Your task to perform on an android device: allow notifications from all sites in the chrome app Image 0: 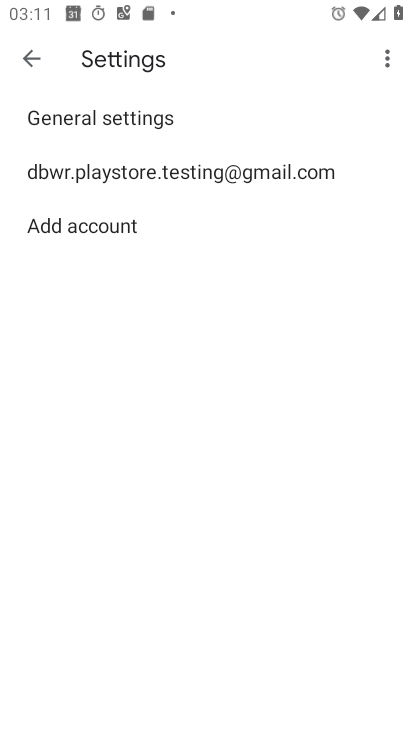
Step 0: click (173, 169)
Your task to perform on an android device: allow notifications from all sites in the chrome app Image 1: 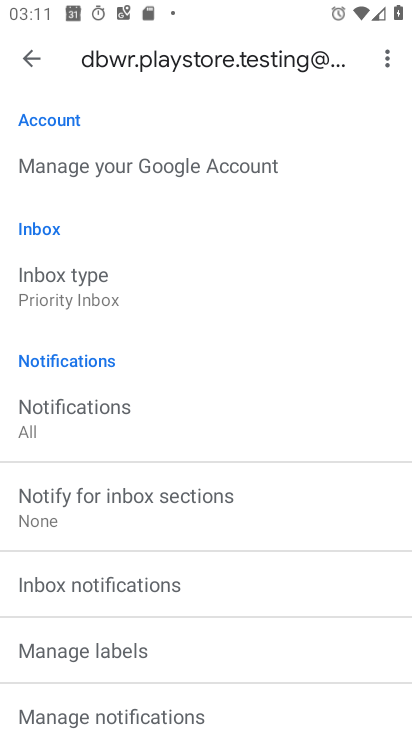
Step 1: drag from (175, 457) to (142, 216)
Your task to perform on an android device: allow notifications from all sites in the chrome app Image 2: 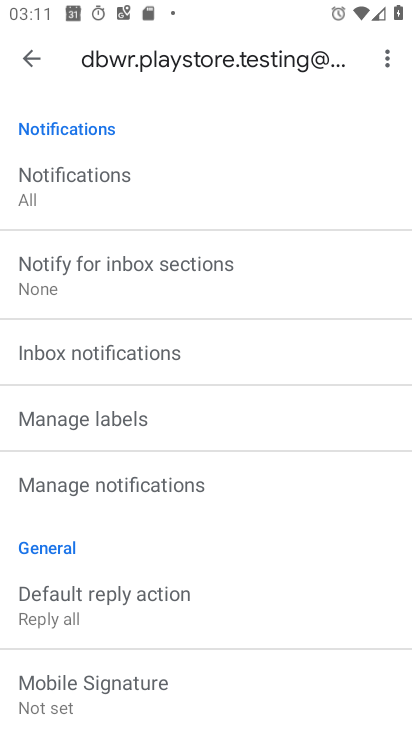
Step 2: drag from (189, 560) to (177, 319)
Your task to perform on an android device: allow notifications from all sites in the chrome app Image 3: 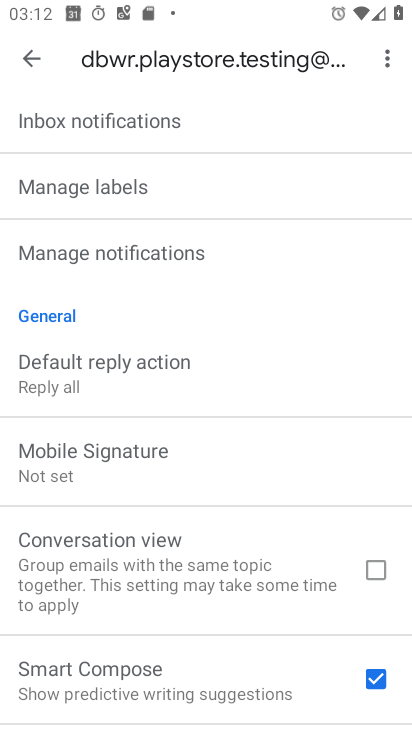
Step 3: click (179, 259)
Your task to perform on an android device: allow notifications from all sites in the chrome app Image 4: 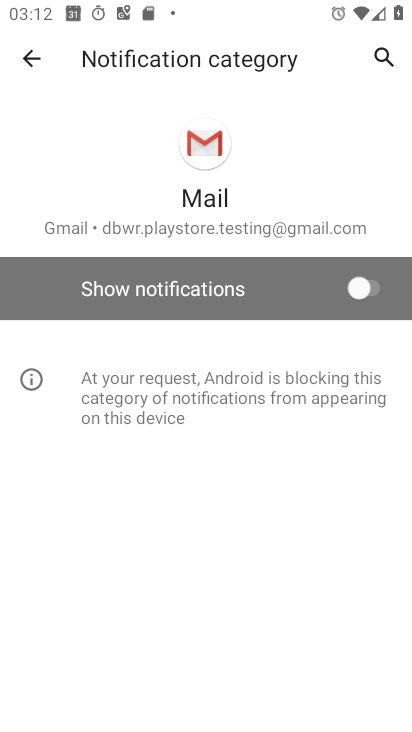
Step 4: click (360, 282)
Your task to perform on an android device: allow notifications from all sites in the chrome app Image 5: 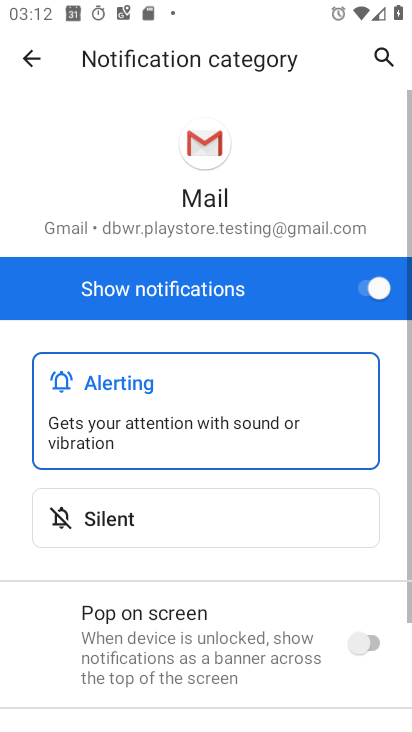
Step 5: task complete